Your task to perform on an android device: change your default location settings in chrome Image 0: 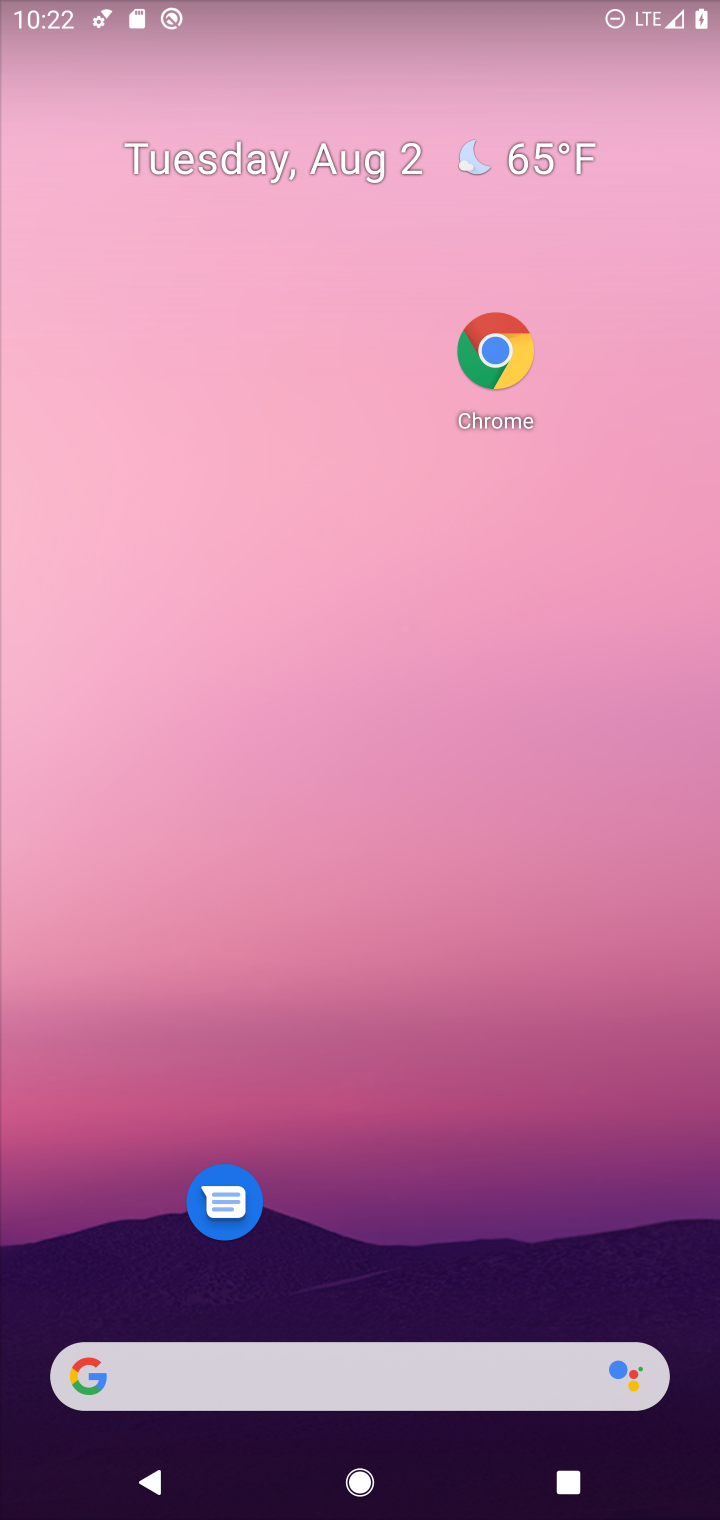
Step 0: click (502, 363)
Your task to perform on an android device: change your default location settings in chrome Image 1: 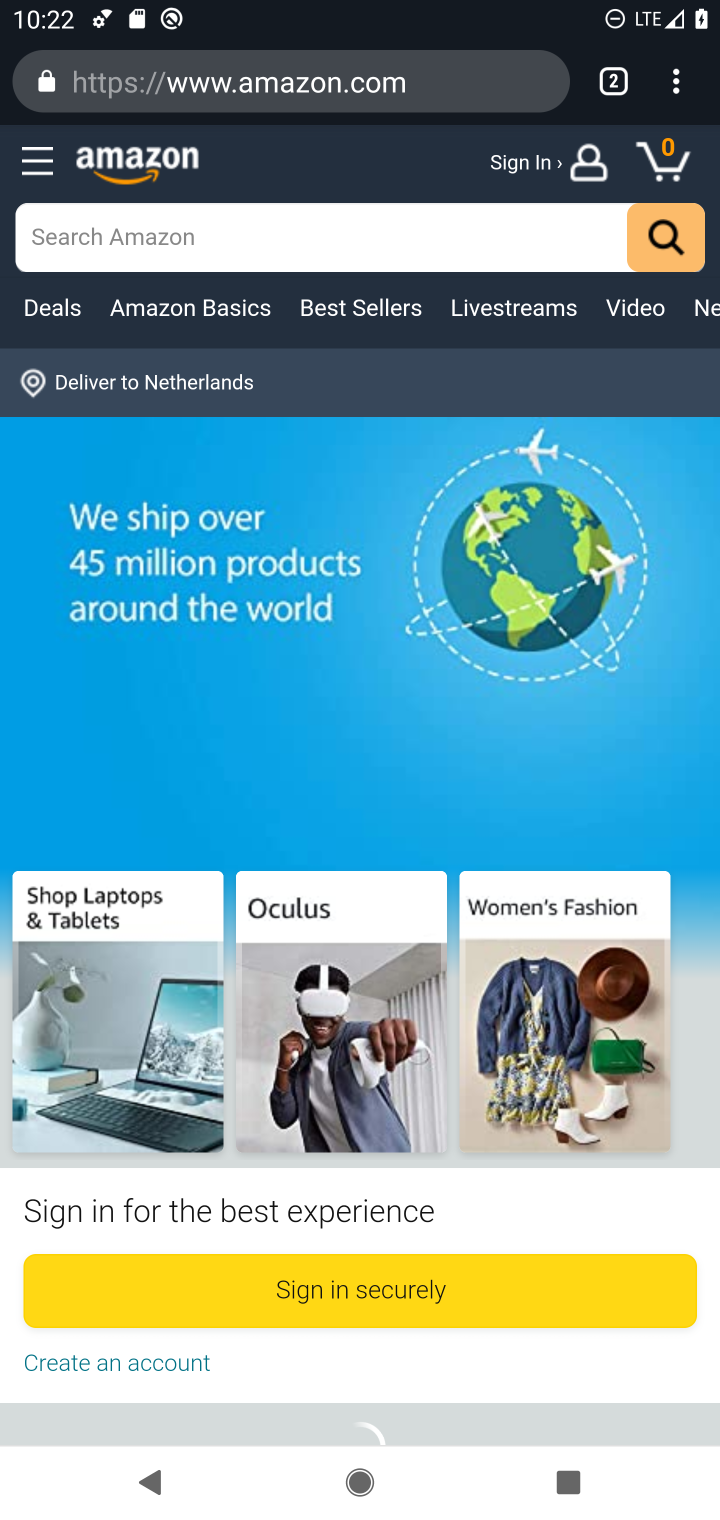
Step 1: drag from (677, 74) to (439, 989)
Your task to perform on an android device: change your default location settings in chrome Image 2: 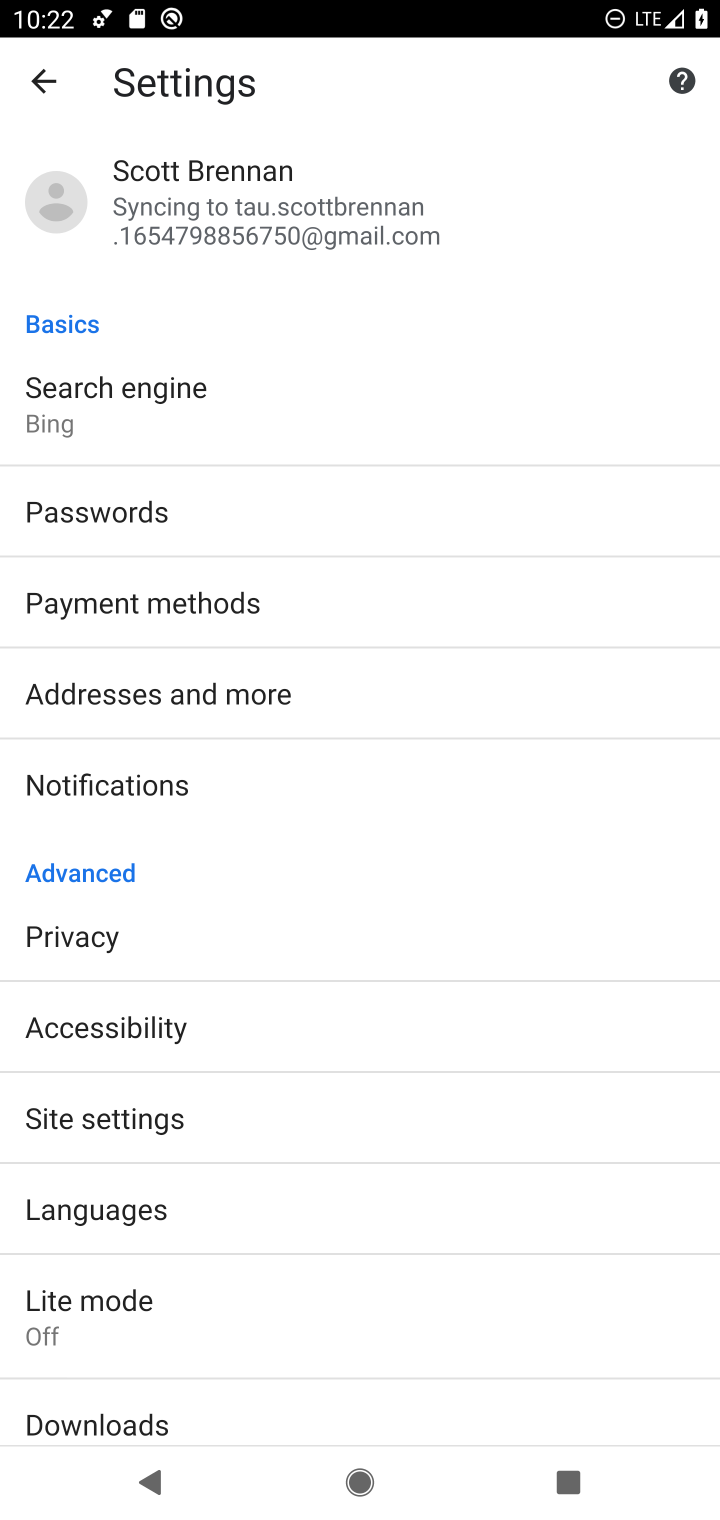
Step 2: click (111, 1117)
Your task to perform on an android device: change your default location settings in chrome Image 3: 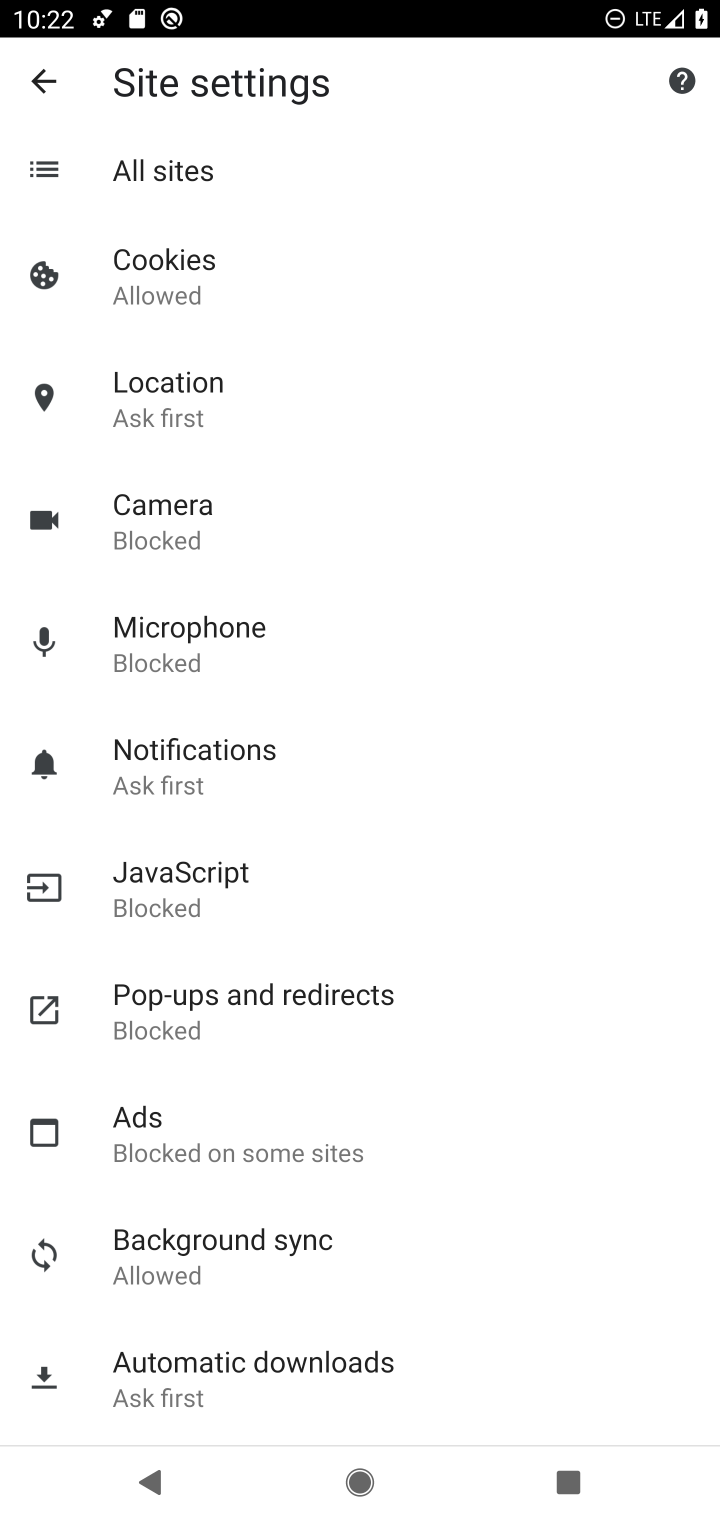
Step 3: click (188, 412)
Your task to perform on an android device: change your default location settings in chrome Image 4: 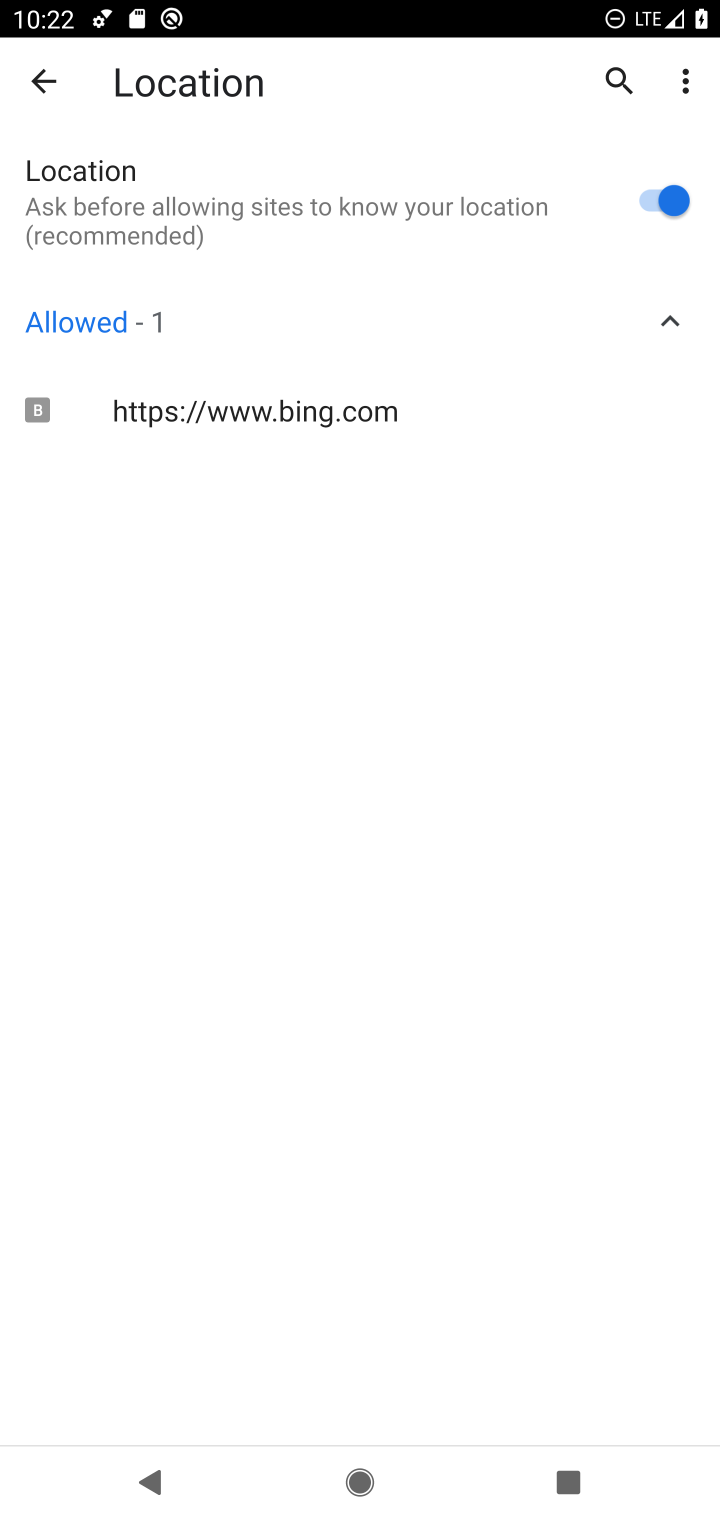
Step 4: click (686, 200)
Your task to perform on an android device: change your default location settings in chrome Image 5: 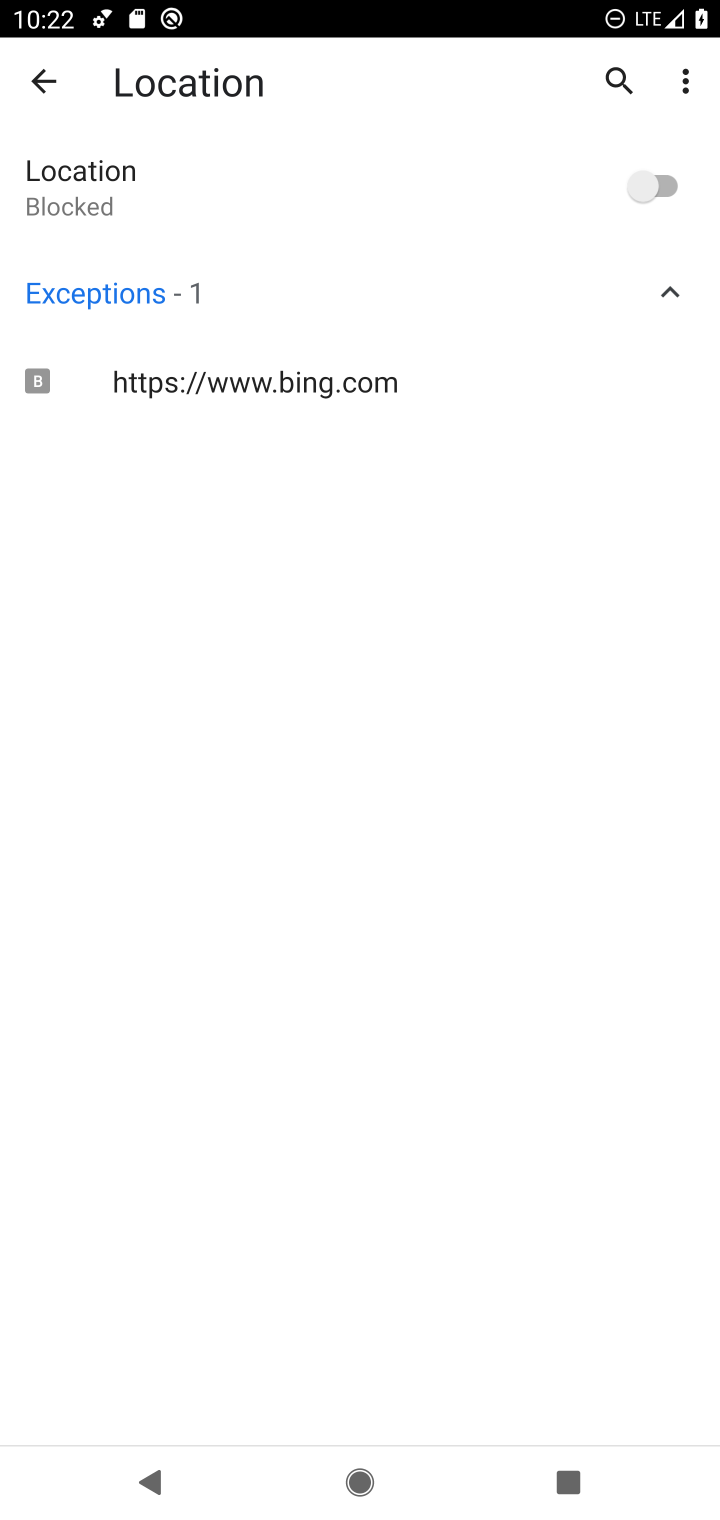
Step 5: task complete